Your task to perform on an android device: add a label to a message in the gmail app Image 0: 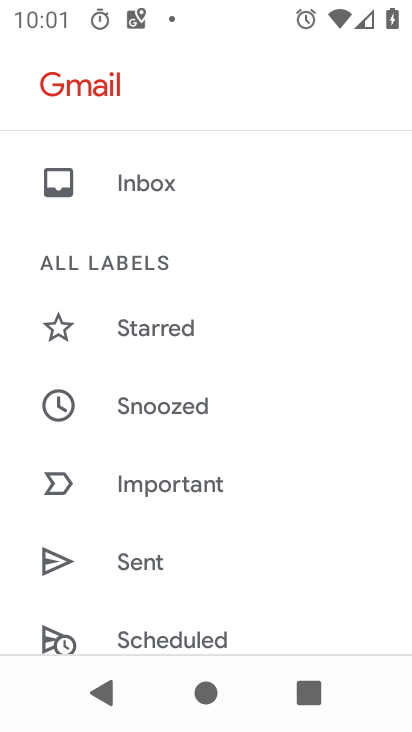
Step 0: press home button
Your task to perform on an android device: add a label to a message in the gmail app Image 1: 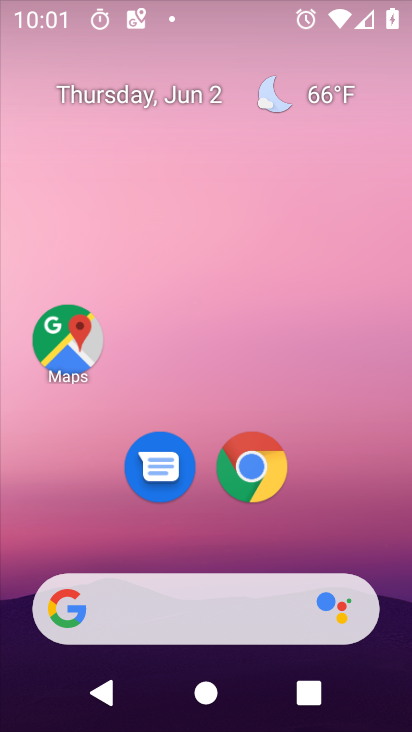
Step 1: drag from (32, 627) to (298, 179)
Your task to perform on an android device: add a label to a message in the gmail app Image 2: 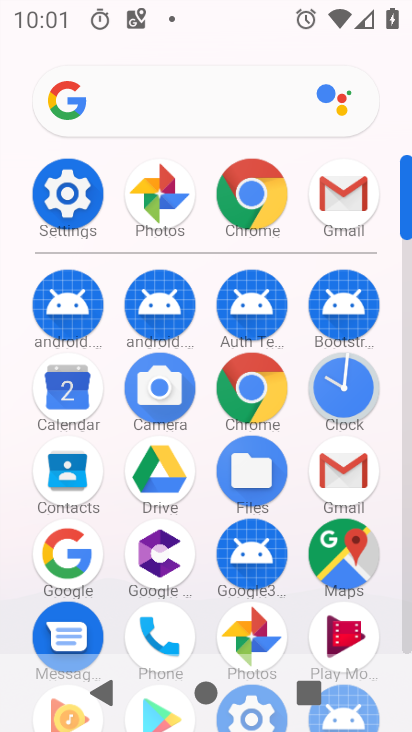
Step 2: click (342, 482)
Your task to perform on an android device: add a label to a message in the gmail app Image 3: 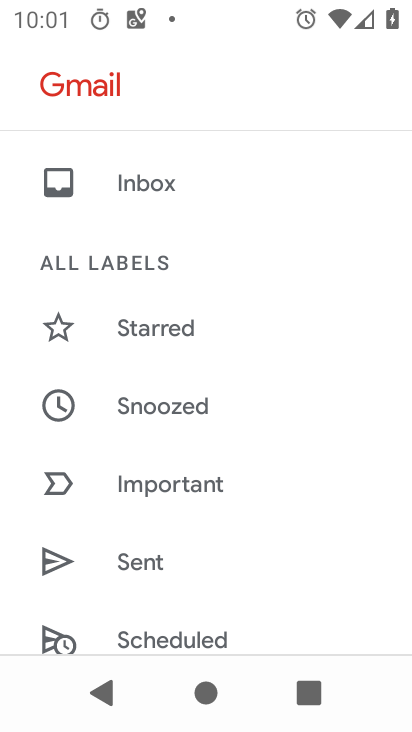
Step 3: drag from (5, 546) to (319, 74)
Your task to perform on an android device: add a label to a message in the gmail app Image 4: 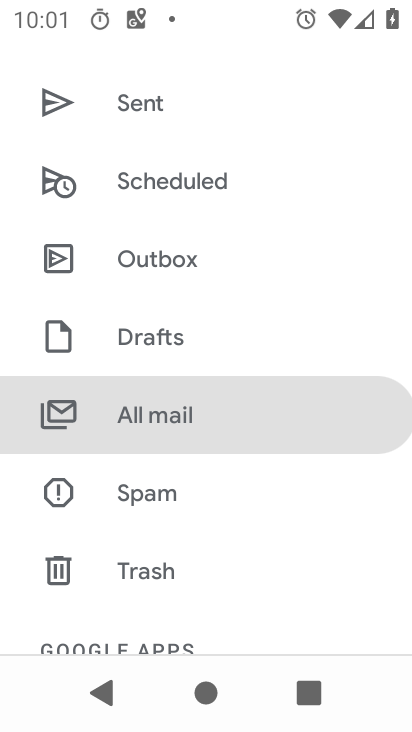
Step 4: drag from (155, 600) to (309, 171)
Your task to perform on an android device: add a label to a message in the gmail app Image 5: 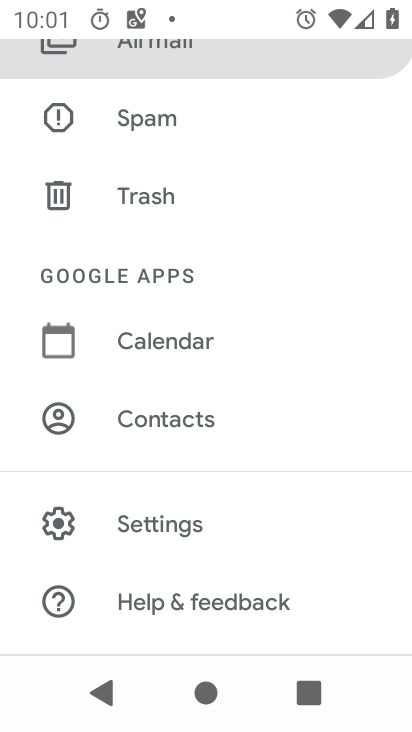
Step 5: drag from (221, 206) to (229, 567)
Your task to perform on an android device: add a label to a message in the gmail app Image 6: 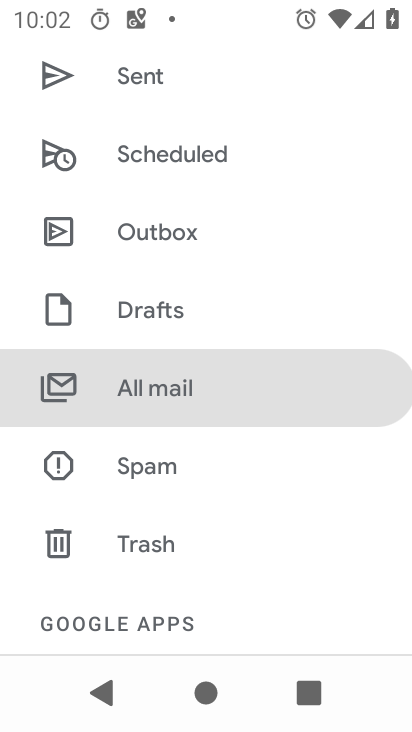
Step 6: drag from (275, 149) to (285, 566)
Your task to perform on an android device: add a label to a message in the gmail app Image 7: 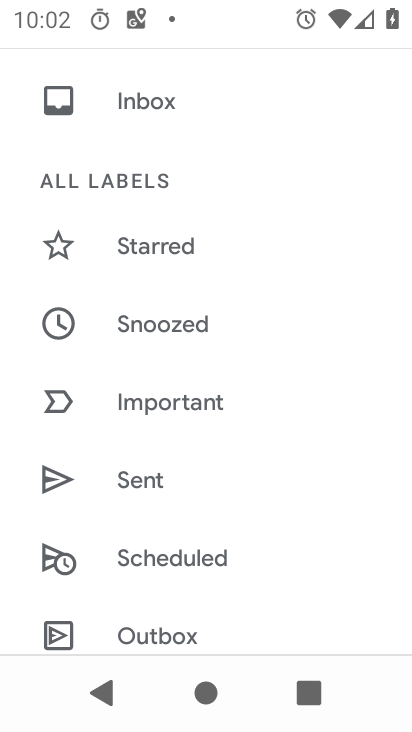
Step 7: press home button
Your task to perform on an android device: add a label to a message in the gmail app Image 8: 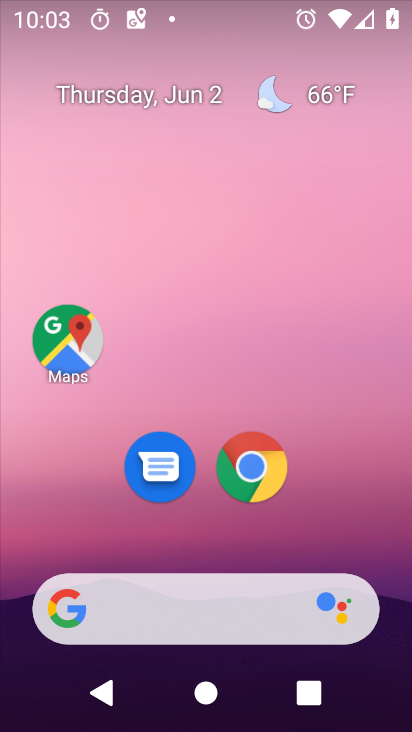
Step 8: drag from (56, 547) to (301, 122)
Your task to perform on an android device: add a label to a message in the gmail app Image 9: 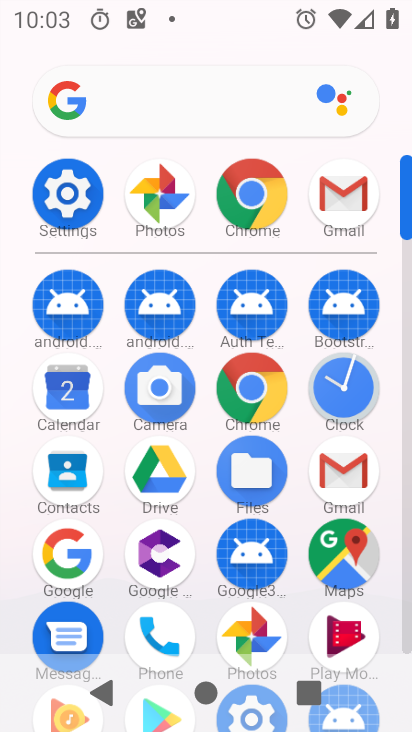
Step 9: click (350, 197)
Your task to perform on an android device: add a label to a message in the gmail app Image 10: 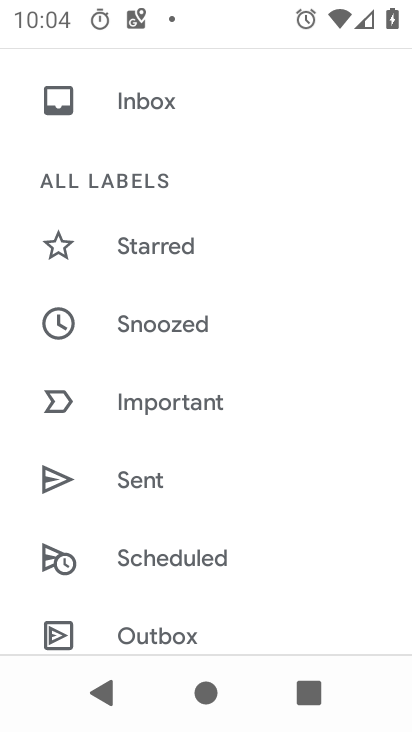
Step 10: task complete